Your task to perform on an android device: turn off javascript in the chrome app Image 0: 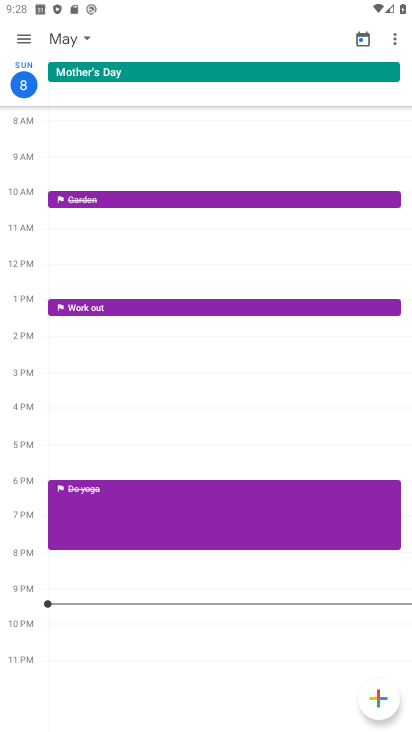
Step 0: drag from (211, 658) to (285, 208)
Your task to perform on an android device: turn off javascript in the chrome app Image 1: 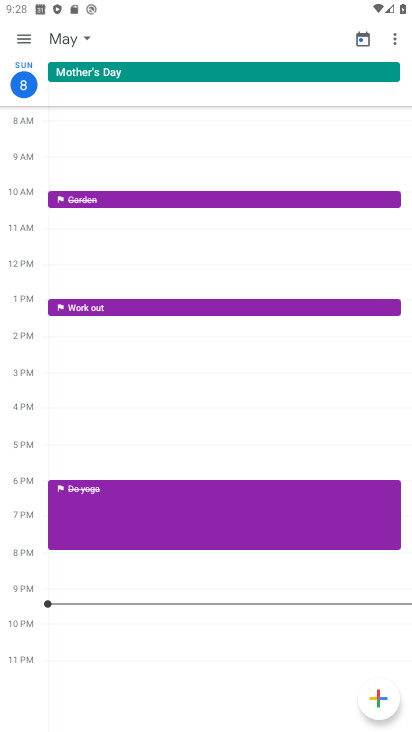
Step 1: press home button
Your task to perform on an android device: turn off javascript in the chrome app Image 2: 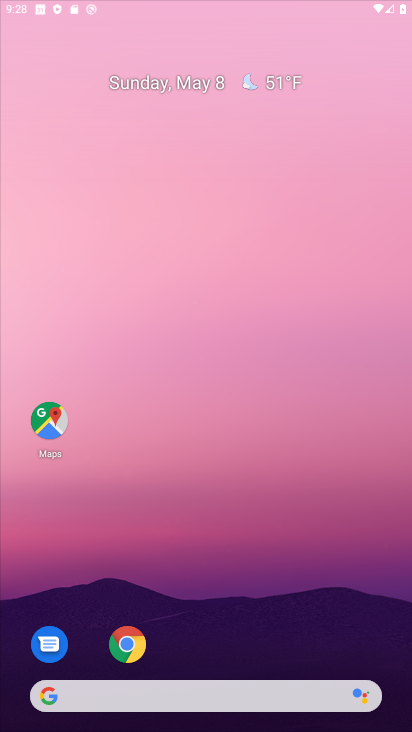
Step 2: drag from (192, 675) to (304, 107)
Your task to perform on an android device: turn off javascript in the chrome app Image 3: 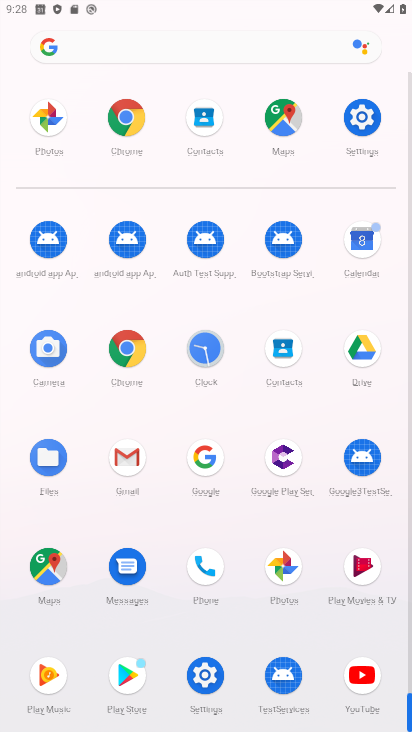
Step 3: click (116, 336)
Your task to perform on an android device: turn off javascript in the chrome app Image 4: 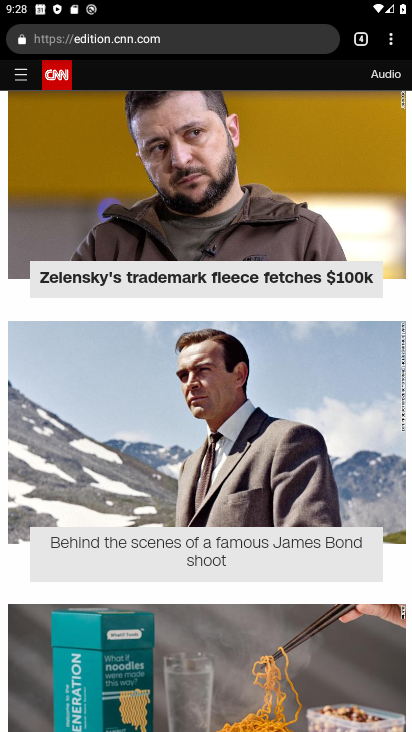
Step 4: drag from (252, 663) to (262, 248)
Your task to perform on an android device: turn off javascript in the chrome app Image 5: 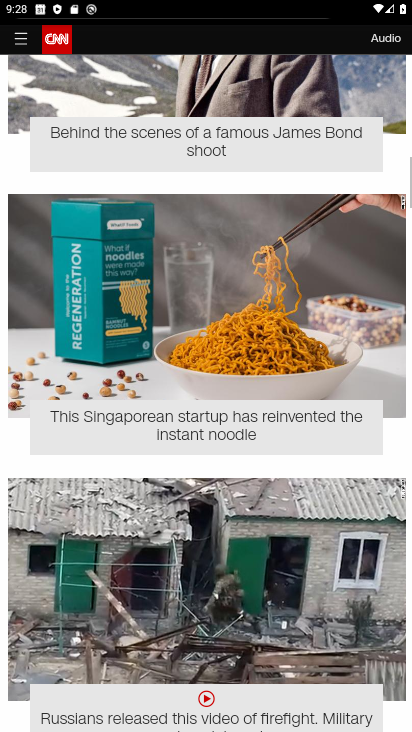
Step 5: drag from (265, 207) to (260, 623)
Your task to perform on an android device: turn off javascript in the chrome app Image 6: 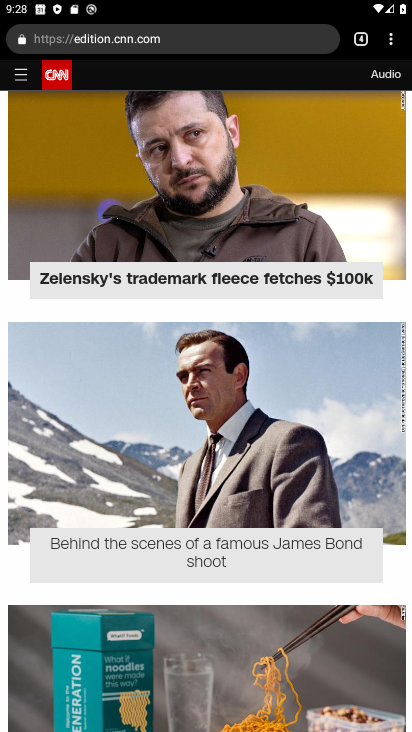
Step 6: drag from (385, 42) to (308, 464)
Your task to perform on an android device: turn off javascript in the chrome app Image 7: 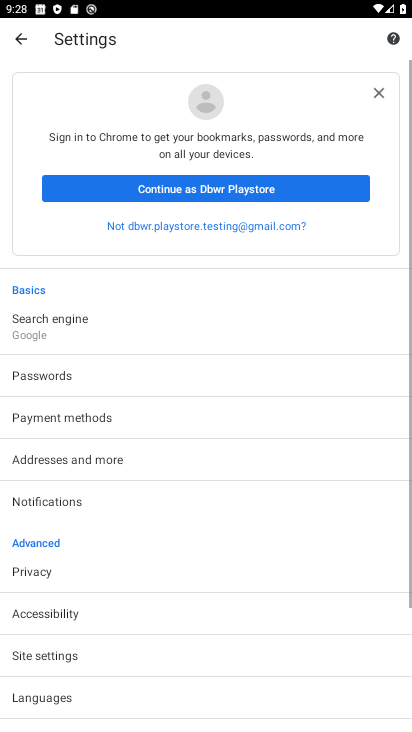
Step 7: drag from (203, 635) to (260, 300)
Your task to perform on an android device: turn off javascript in the chrome app Image 8: 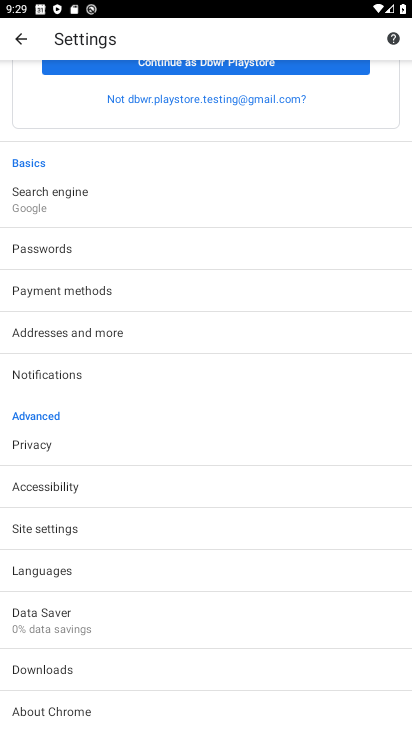
Step 8: click (129, 525)
Your task to perform on an android device: turn off javascript in the chrome app Image 9: 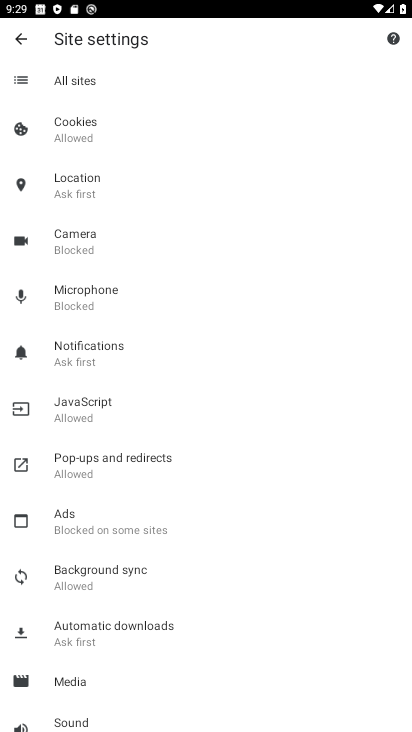
Step 9: click (124, 419)
Your task to perform on an android device: turn off javascript in the chrome app Image 10: 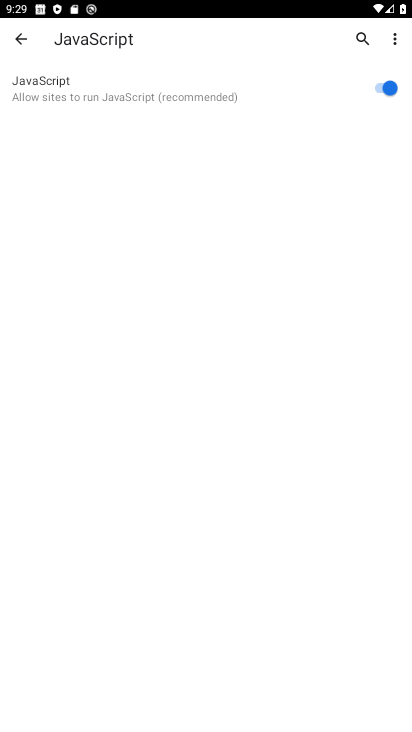
Step 10: click (385, 88)
Your task to perform on an android device: turn off javascript in the chrome app Image 11: 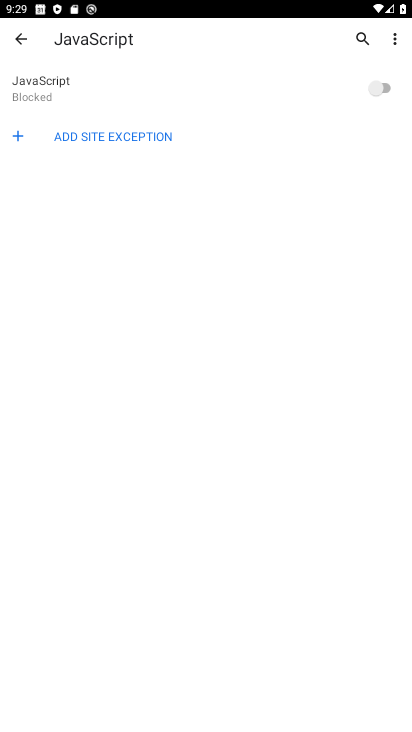
Step 11: task complete